Your task to perform on an android device: Go to ESPN.com Image 0: 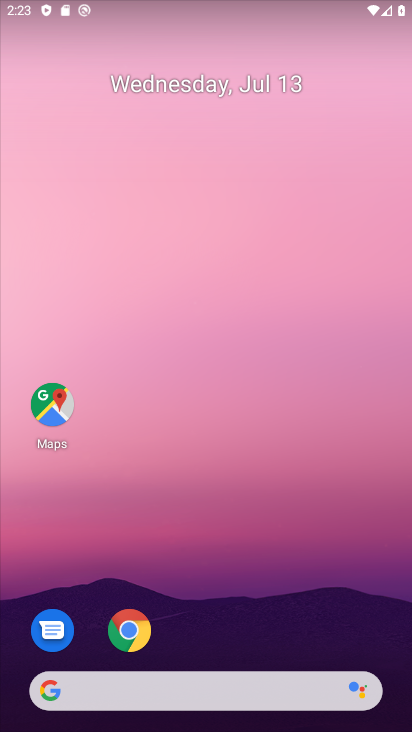
Step 0: drag from (269, 639) to (123, 87)
Your task to perform on an android device: Go to ESPN.com Image 1: 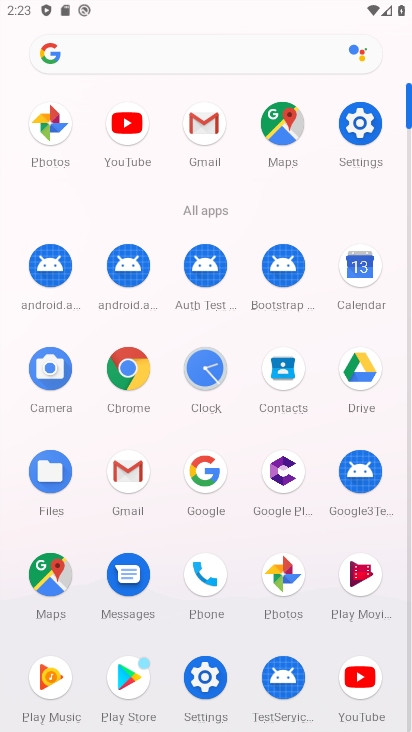
Step 1: click (125, 374)
Your task to perform on an android device: Go to ESPN.com Image 2: 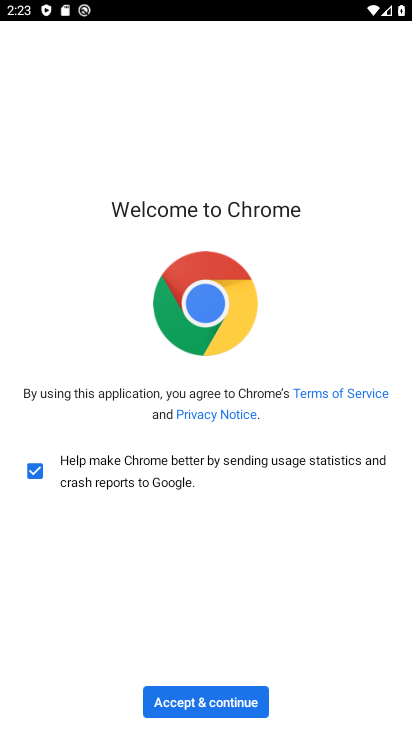
Step 2: click (184, 694)
Your task to perform on an android device: Go to ESPN.com Image 3: 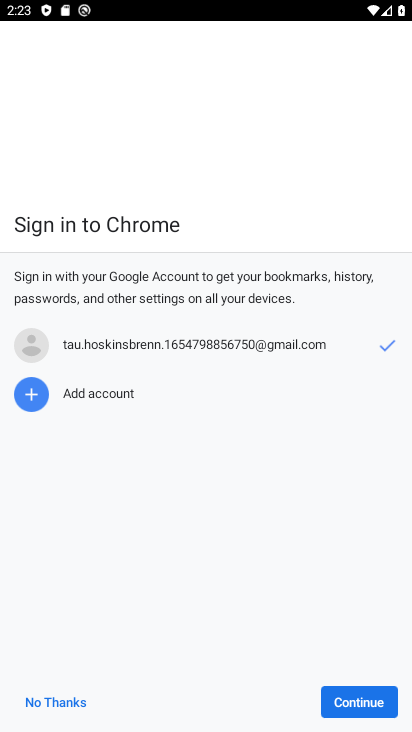
Step 3: click (370, 704)
Your task to perform on an android device: Go to ESPN.com Image 4: 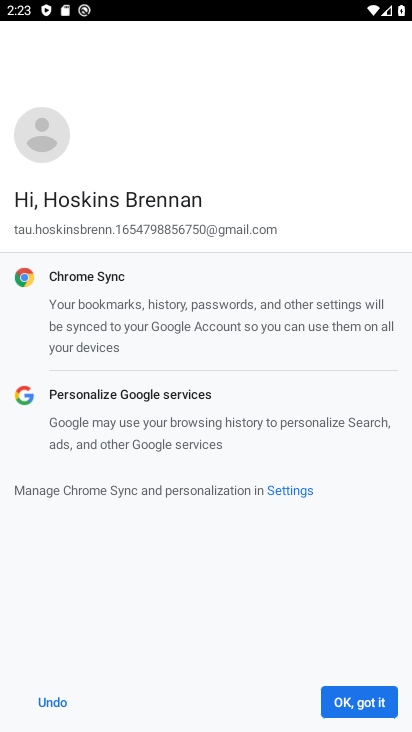
Step 4: click (370, 704)
Your task to perform on an android device: Go to ESPN.com Image 5: 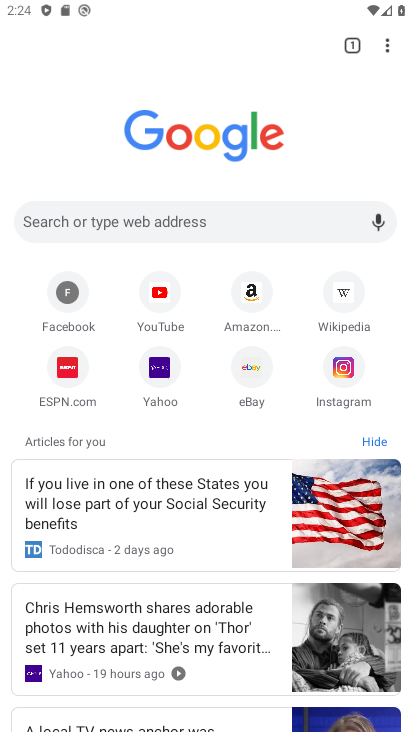
Step 5: click (72, 373)
Your task to perform on an android device: Go to ESPN.com Image 6: 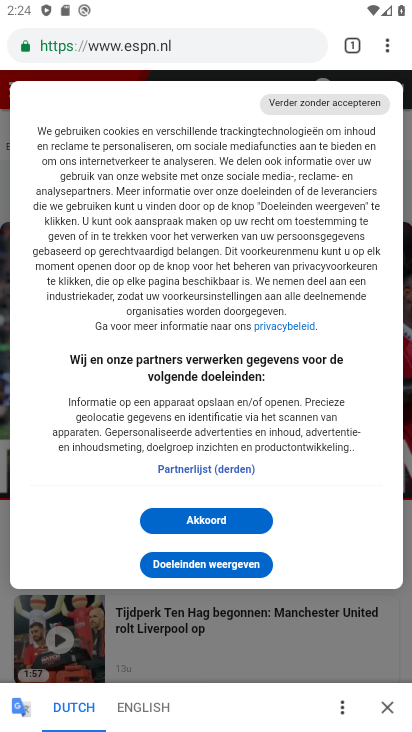
Step 6: task complete